Your task to perform on an android device: move an email to a new category in the gmail app Image 0: 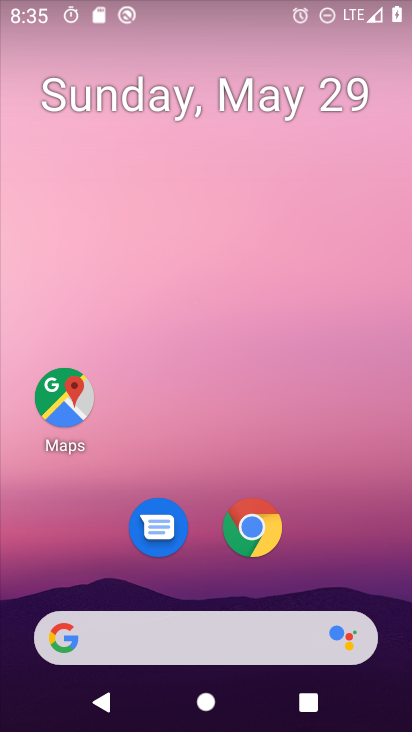
Step 0: drag from (380, 634) to (253, 13)
Your task to perform on an android device: move an email to a new category in the gmail app Image 1: 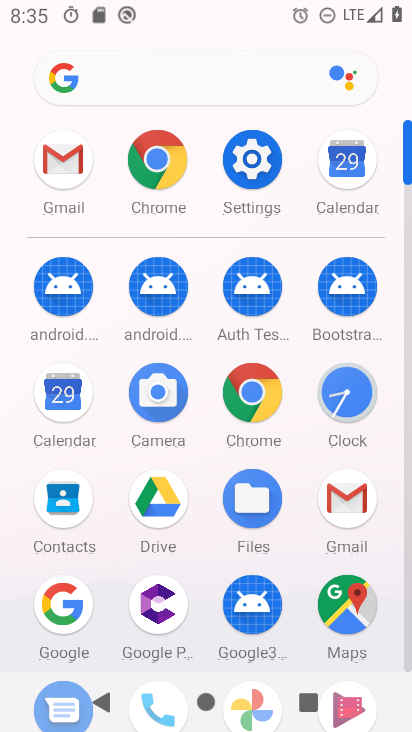
Step 1: click (341, 520)
Your task to perform on an android device: move an email to a new category in the gmail app Image 2: 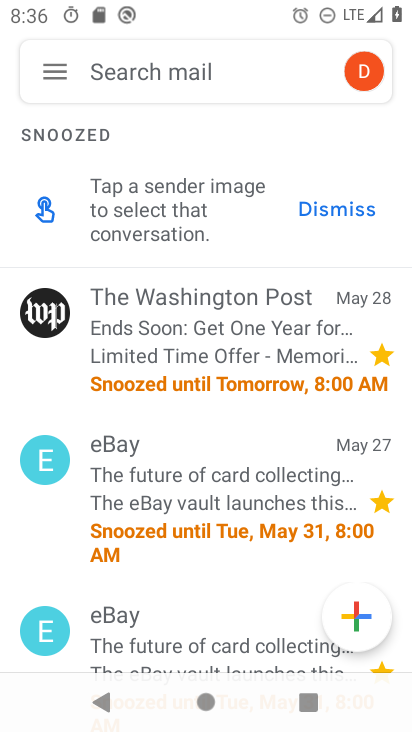
Step 2: task complete